Your task to perform on an android device: turn on translation in the chrome app Image 0: 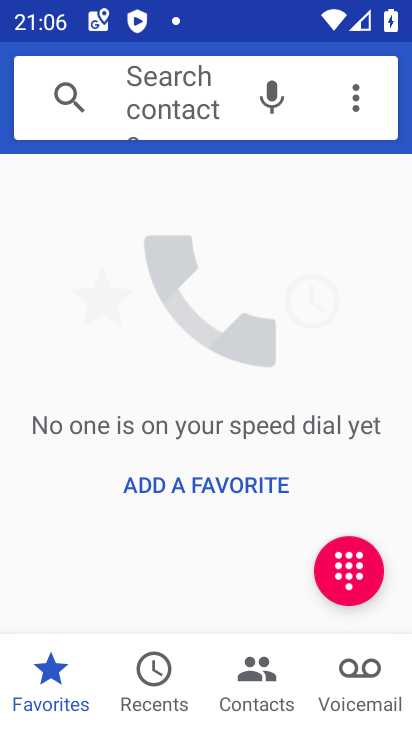
Step 0: press home button
Your task to perform on an android device: turn on translation in the chrome app Image 1: 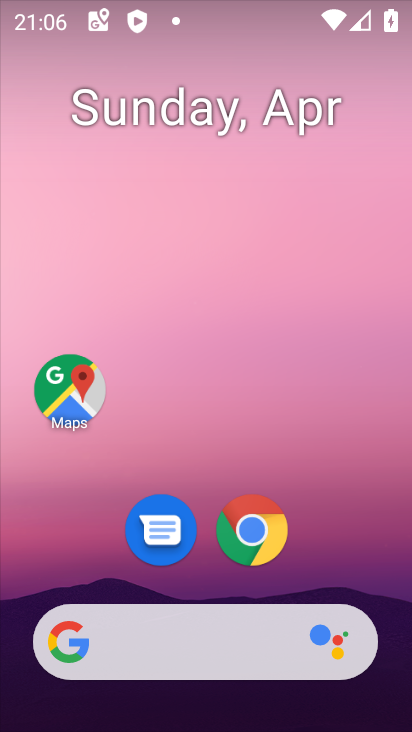
Step 1: click (267, 539)
Your task to perform on an android device: turn on translation in the chrome app Image 2: 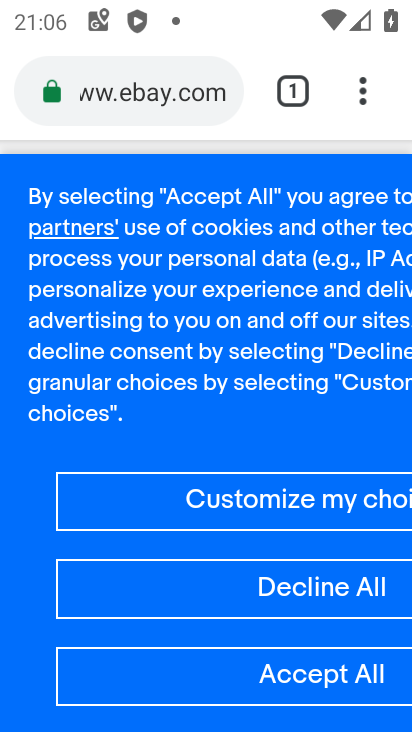
Step 2: click (356, 78)
Your task to perform on an android device: turn on translation in the chrome app Image 3: 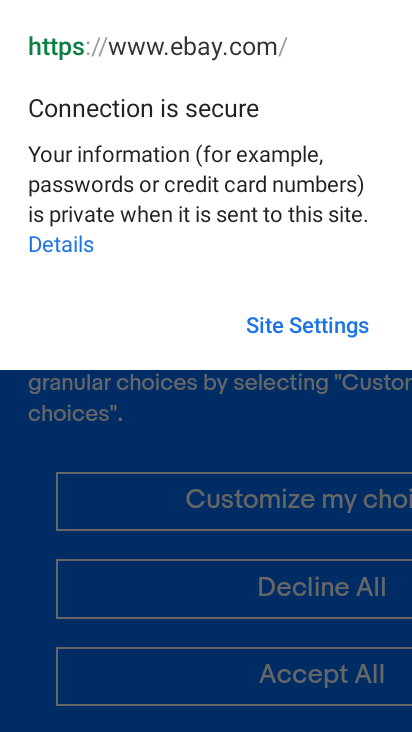
Step 3: press back button
Your task to perform on an android device: turn on translation in the chrome app Image 4: 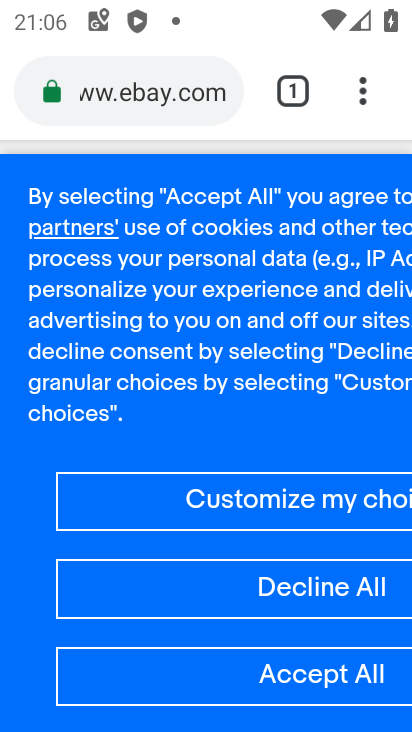
Step 4: click (361, 93)
Your task to perform on an android device: turn on translation in the chrome app Image 5: 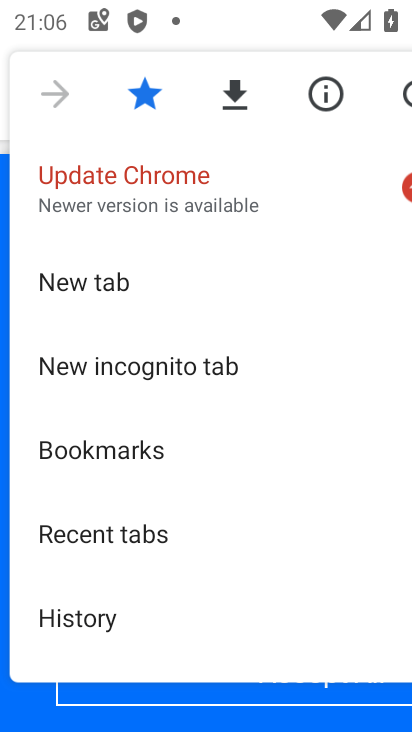
Step 5: drag from (163, 536) to (192, 146)
Your task to perform on an android device: turn on translation in the chrome app Image 6: 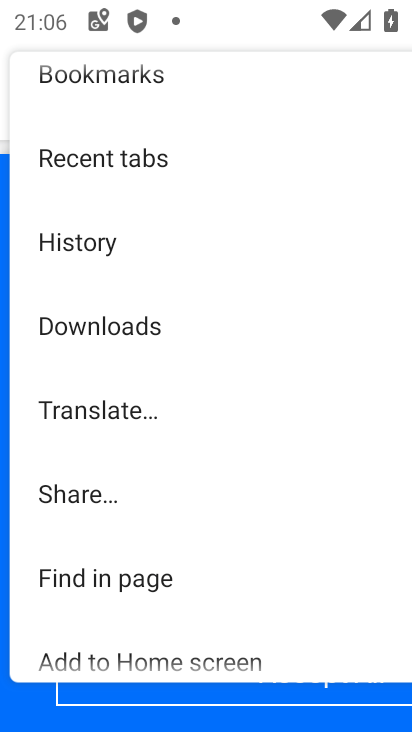
Step 6: drag from (127, 584) to (137, 381)
Your task to perform on an android device: turn on translation in the chrome app Image 7: 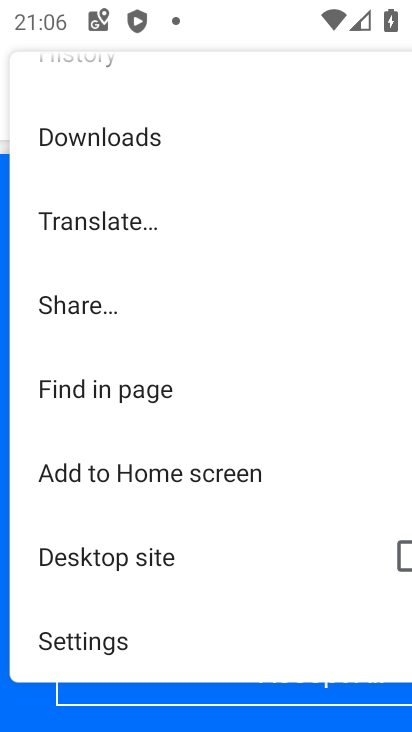
Step 7: click (96, 639)
Your task to perform on an android device: turn on translation in the chrome app Image 8: 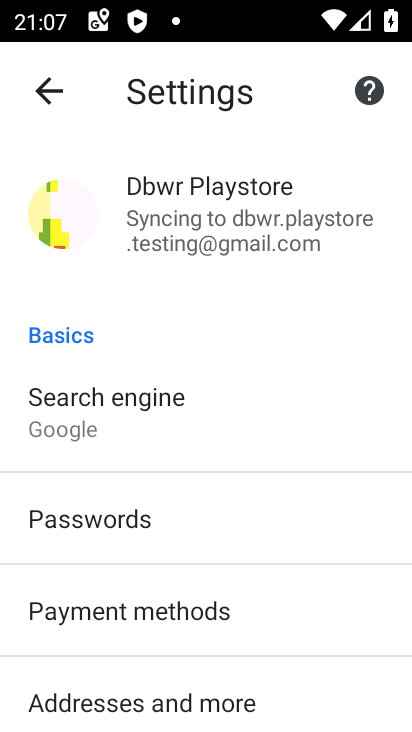
Step 8: drag from (171, 662) to (165, 326)
Your task to perform on an android device: turn on translation in the chrome app Image 9: 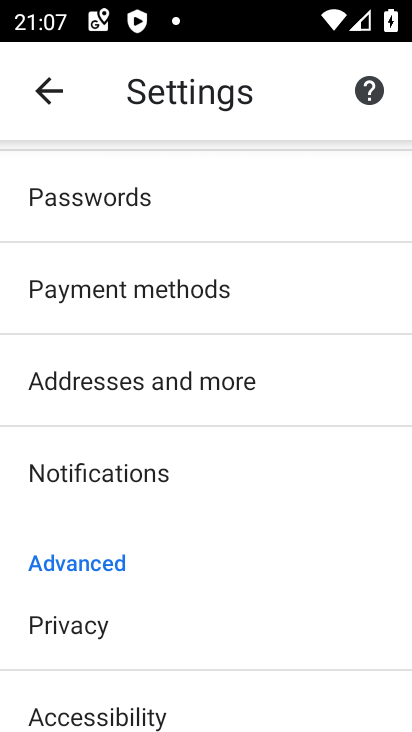
Step 9: drag from (157, 658) to (154, 357)
Your task to perform on an android device: turn on translation in the chrome app Image 10: 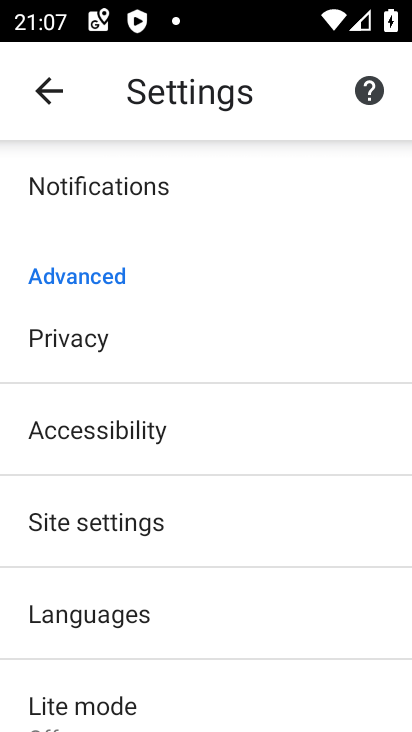
Step 10: click (134, 597)
Your task to perform on an android device: turn on translation in the chrome app Image 11: 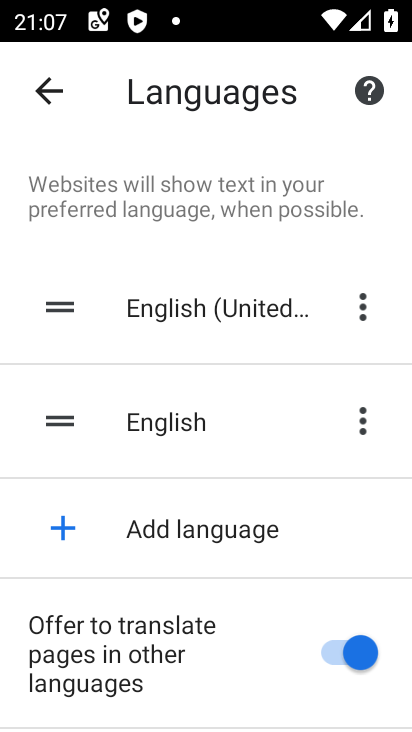
Step 11: task complete